Your task to perform on an android device: create a new album in the google photos Image 0: 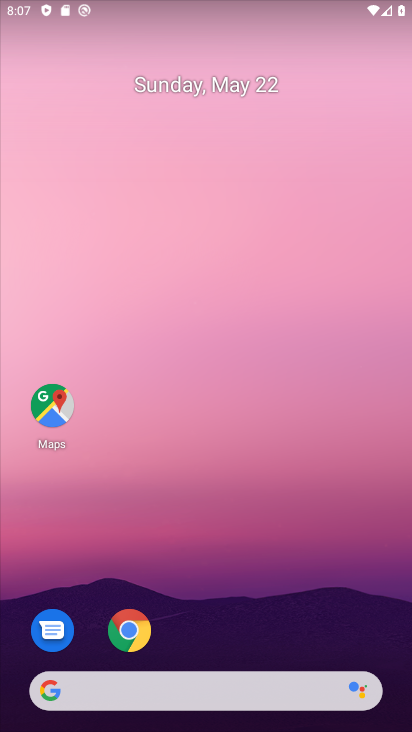
Step 0: press home button
Your task to perform on an android device: create a new album in the google photos Image 1: 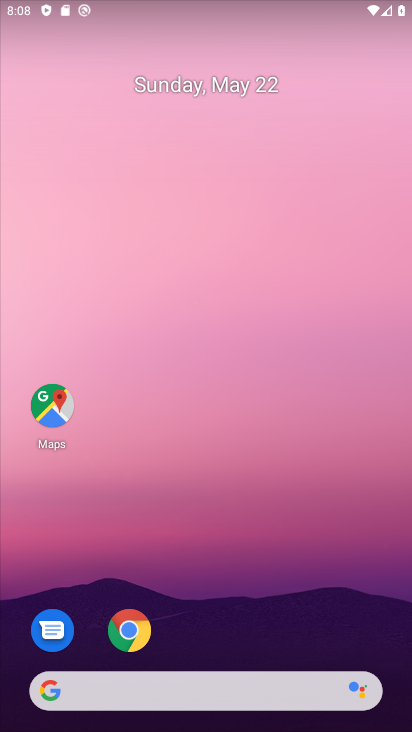
Step 1: drag from (135, 683) to (333, 149)
Your task to perform on an android device: create a new album in the google photos Image 2: 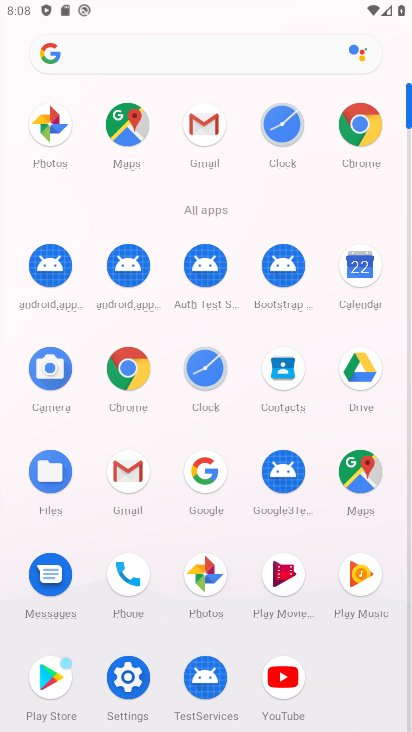
Step 2: click (212, 579)
Your task to perform on an android device: create a new album in the google photos Image 3: 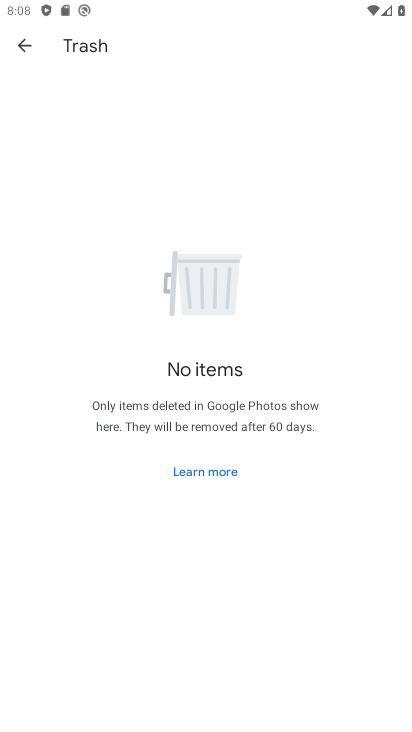
Step 3: click (24, 39)
Your task to perform on an android device: create a new album in the google photos Image 4: 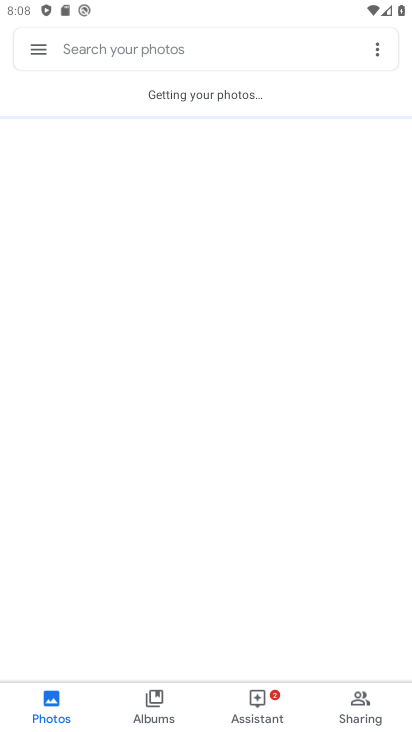
Step 4: drag from (229, 196) to (227, 452)
Your task to perform on an android device: create a new album in the google photos Image 5: 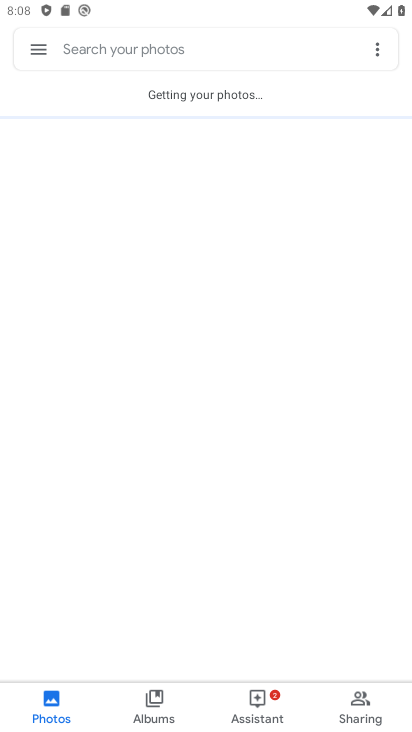
Step 5: drag from (154, 105) to (175, 499)
Your task to perform on an android device: create a new album in the google photos Image 6: 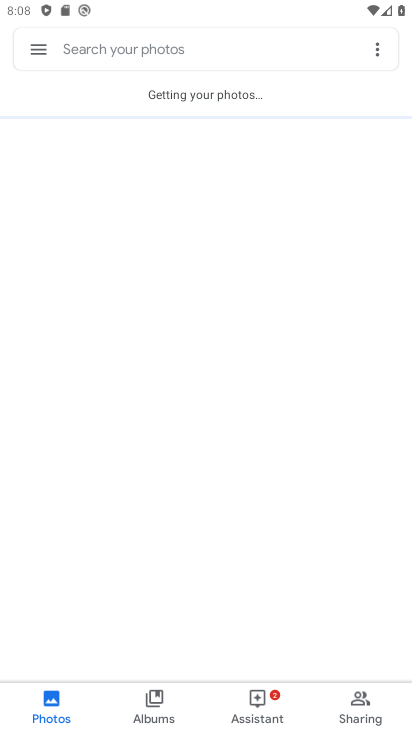
Step 6: click (159, 702)
Your task to perform on an android device: create a new album in the google photos Image 7: 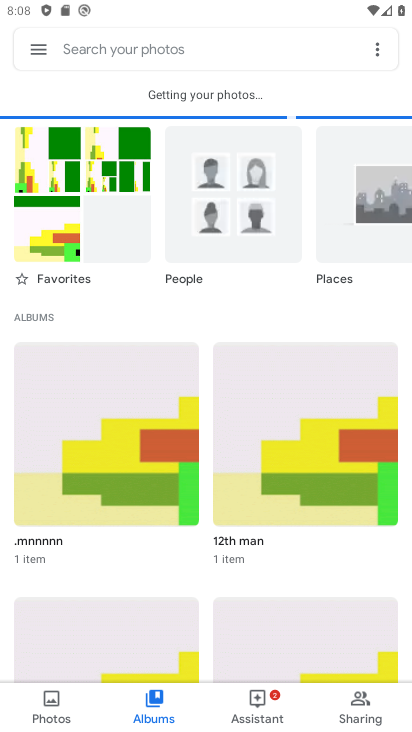
Step 7: task complete